Your task to perform on an android device: manage bookmarks in the chrome app Image 0: 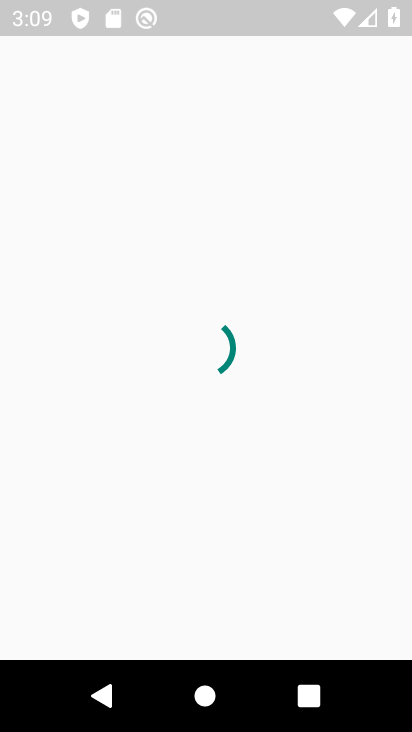
Step 0: click (235, 491)
Your task to perform on an android device: manage bookmarks in the chrome app Image 1: 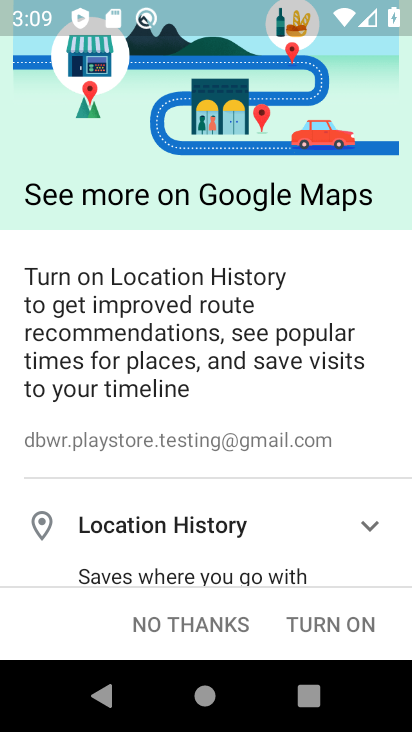
Step 1: click (329, 630)
Your task to perform on an android device: manage bookmarks in the chrome app Image 2: 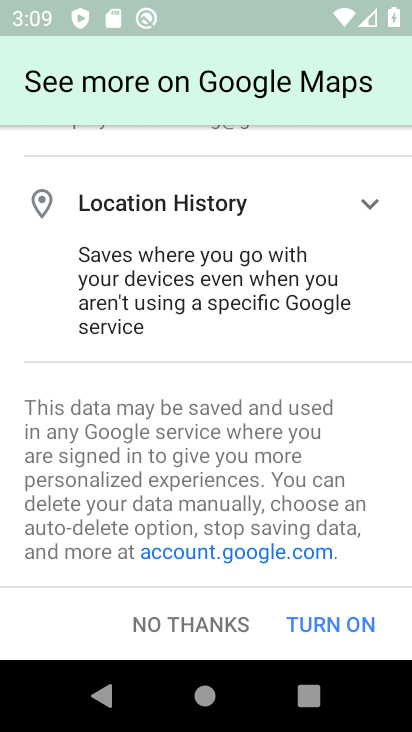
Step 2: click (350, 631)
Your task to perform on an android device: manage bookmarks in the chrome app Image 3: 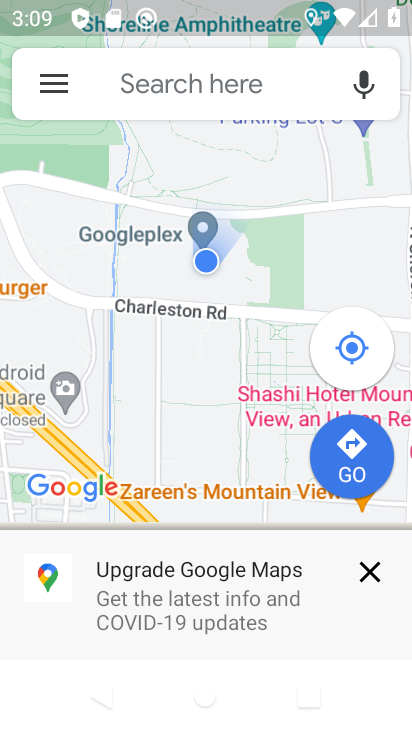
Step 3: click (355, 565)
Your task to perform on an android device: manage bookmarks in the chrome app Image 4: 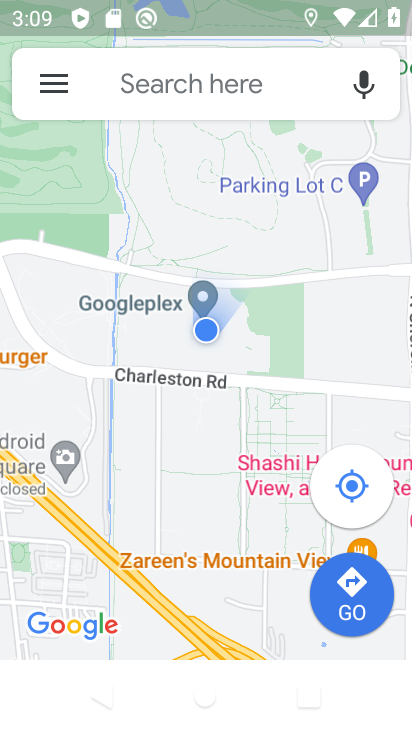
Step 4: press home button
Your task to perform on an android device: manage bookmarks in the chrome app Image 5: 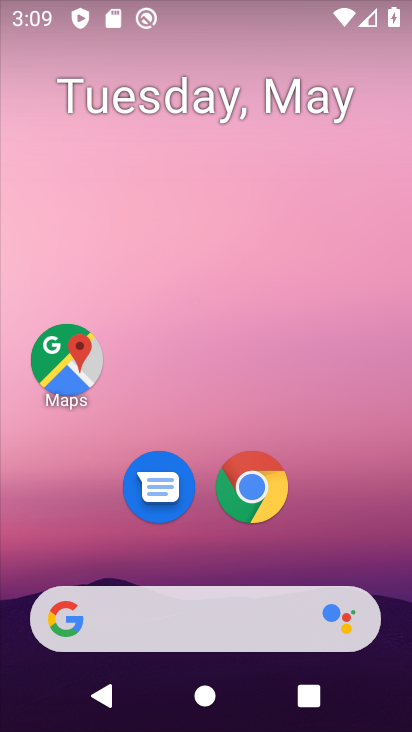
Step 5: drag from (207, 570) to (118, 105)
Your task to perform on an android device: manage bookmarks in the chrome app Image 6: 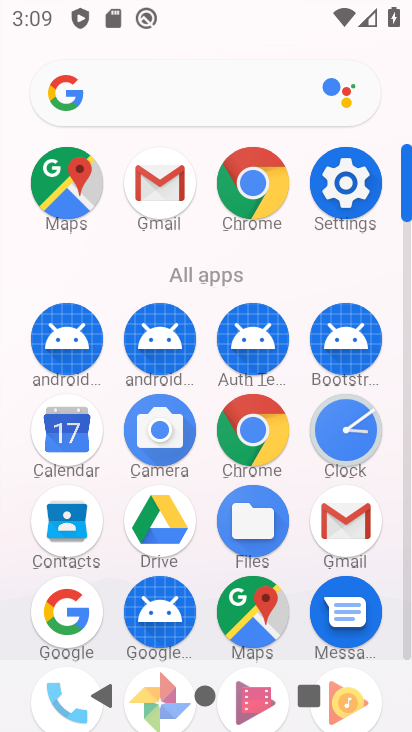
Step 6: click (252, 188)
Your task to perform on an android device: manage bookmarks in the chrome app Image 7: 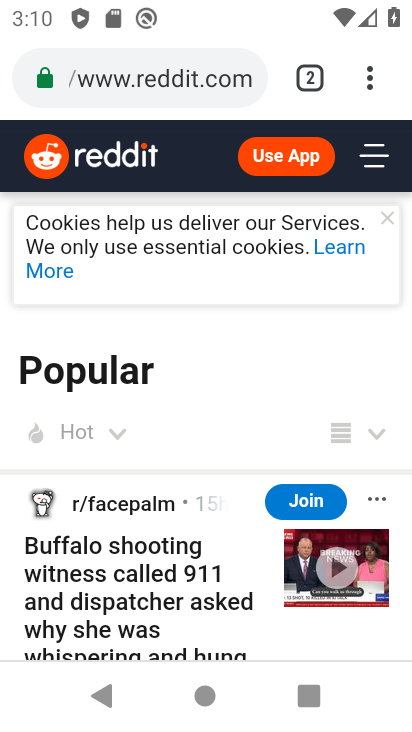
Step 7: click (362, 82)
Your task to perform on an android device: manage bookmarks in the chrome app Image 8: 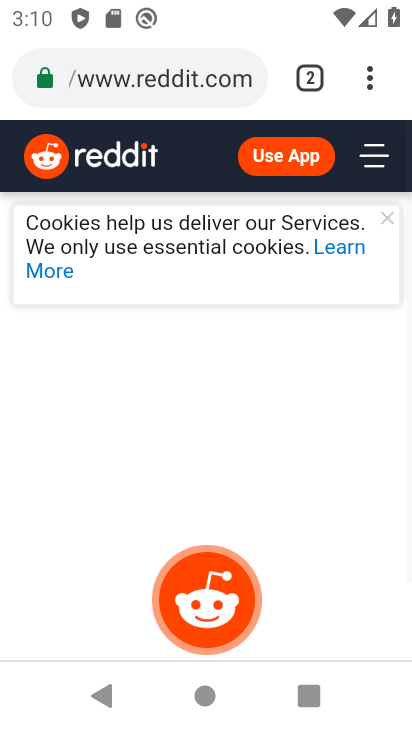
Step 8: task complete